Your task to perform on an android device: Do I have any events this weekend? Image 0: 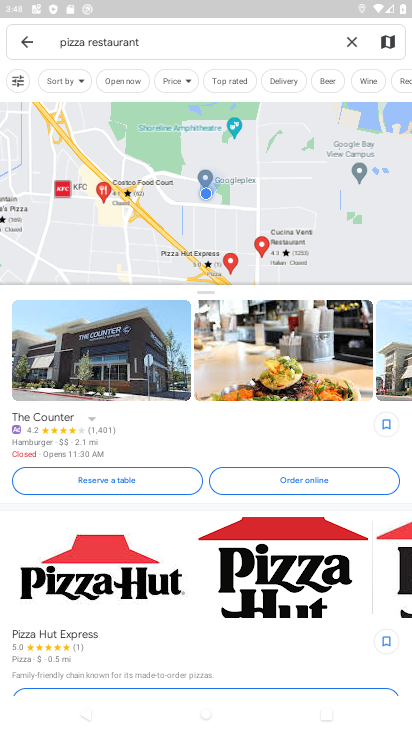
Step 0: press home button
Your task to perform on an android device: Do I have any events this weekend? Image 1: 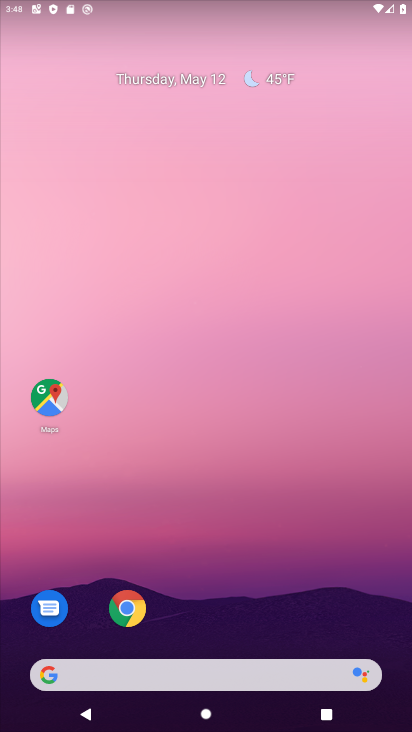
Step 1: drag from (225, 634) to (239, 61)
Your task to perform on an android device: Do I have any events this weekend? Image 2: 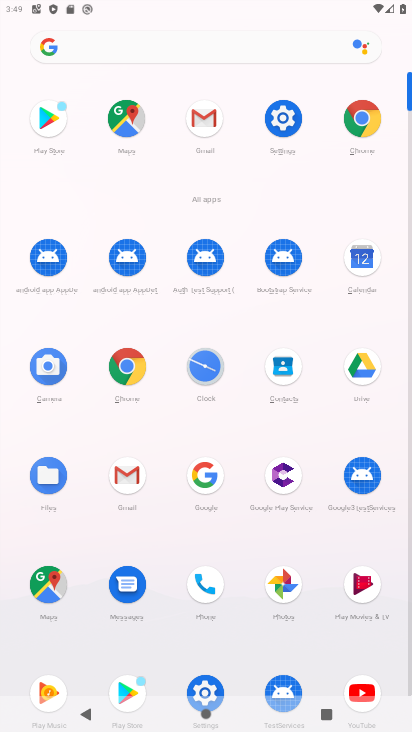
Step 2: click (363, 258)
Your task to perform on an android device: Do I have any events this weekend? Image 3: 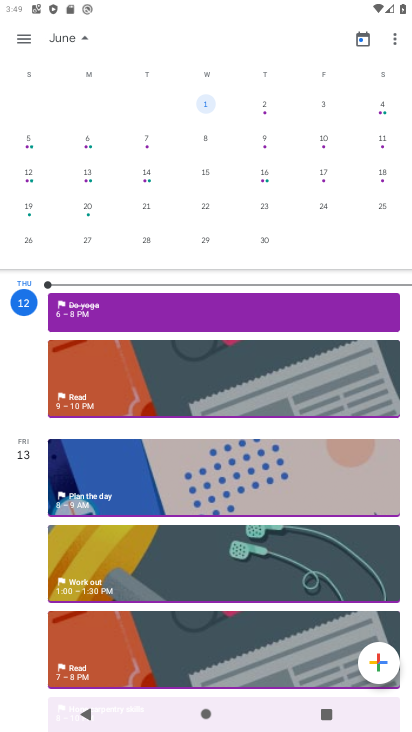
Step 3: drag from (57, 217) to (397, 112)
Your task to perform on an android device: Do I have any events this weekend? Image 4: 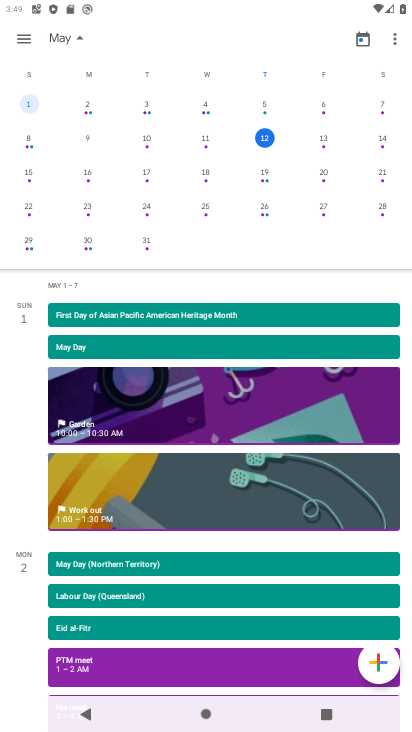
Step 4: drag from (60, 171) to (340, 130)
Your task to perform on an android device: Do I have any events this weekend? Image 5: 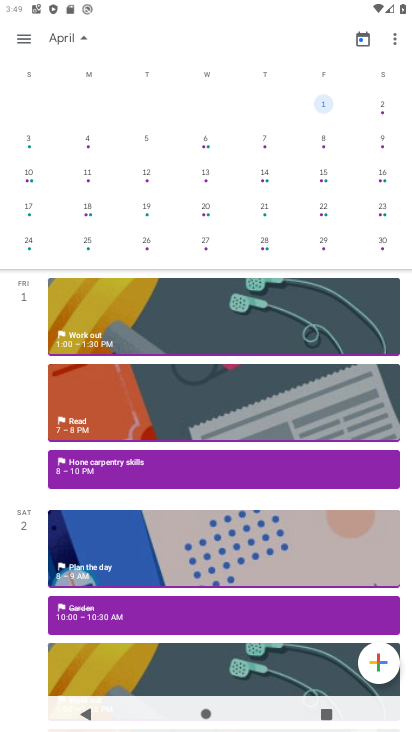
Step 5: drag from (365, 228) to (378, 135)
Your task to perform on an android device: Do I have any events this weekend? Image 6: 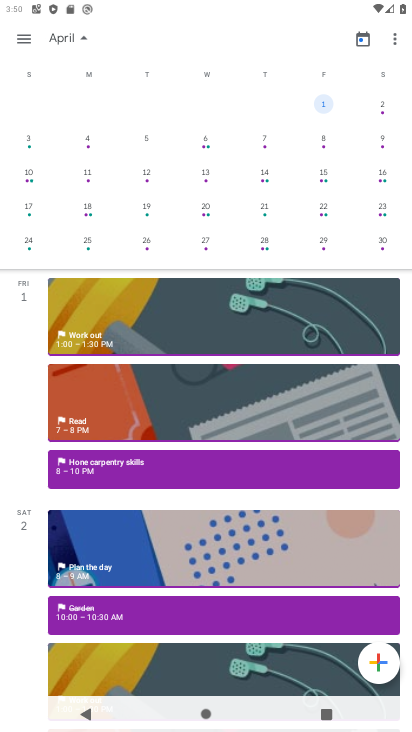
Step 6: click (23, 38)
Your task to perform on an android device: Do I have any events this weekend? Image 7: 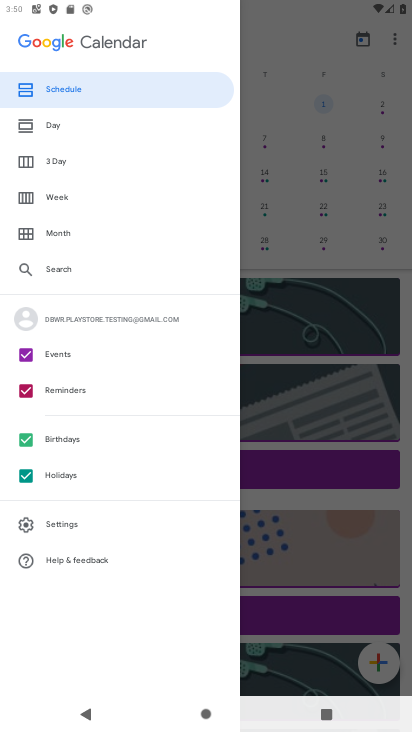
Step 7: click (50, 365)
Your task to perform on an android device: Do I have any events this weekend? Image 8: 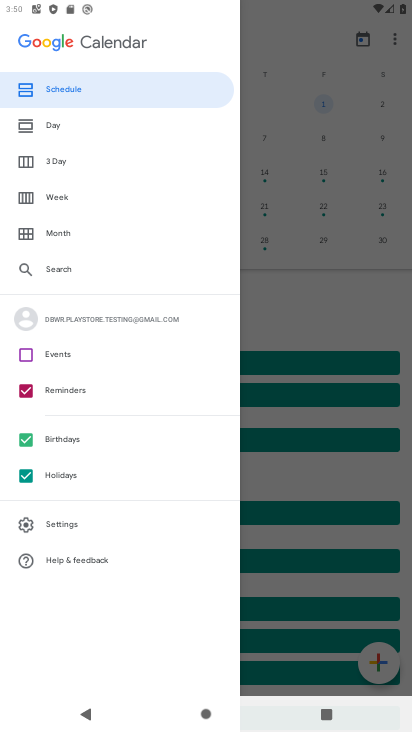
Step 8: click (50, 365)
Your task to perform on an android device: Do I have any events this weekend? Image 9: 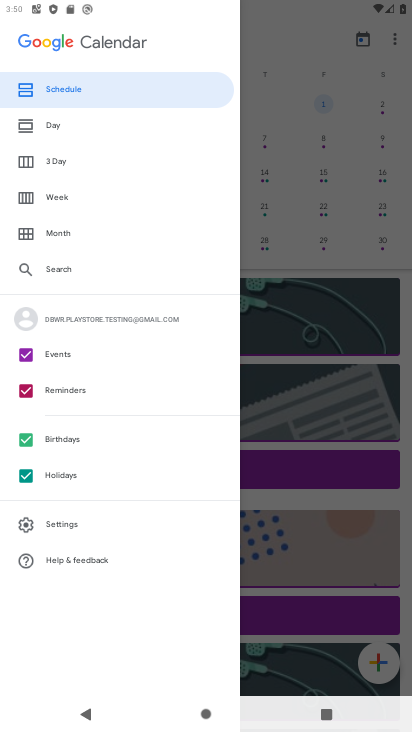
Step 9: click (362, 466)
Your task to perform on an android device: Do I have any events this weekend? Image 10: 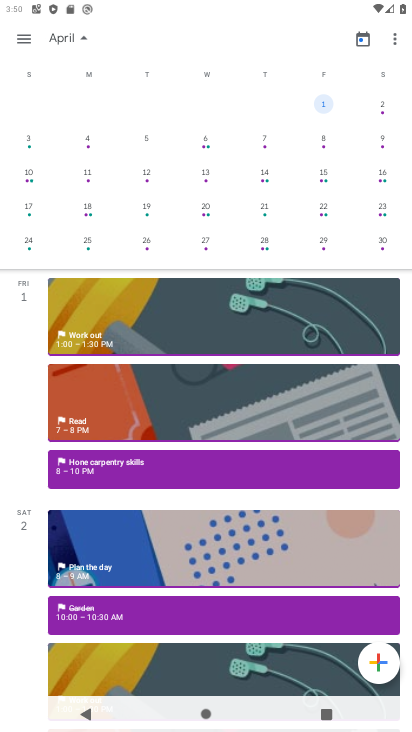
Step 10: click (362, 466)
Your task to perform on an android device: Do I have any events this weekend? Image 11: 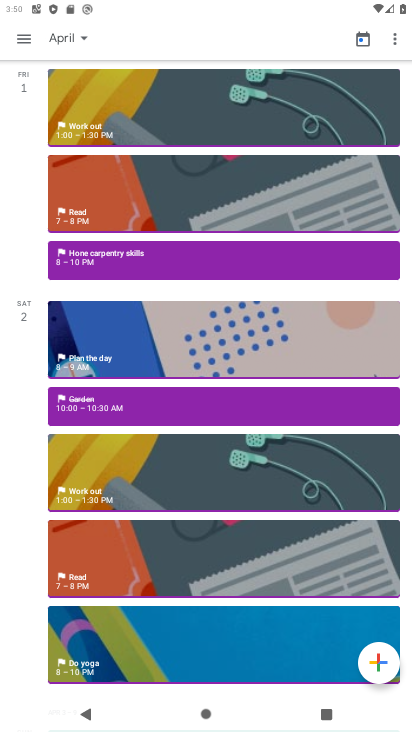
Step 11: click (206, 277)
Your task to perform on an android device: Do I have any events this weekend? Image 12: 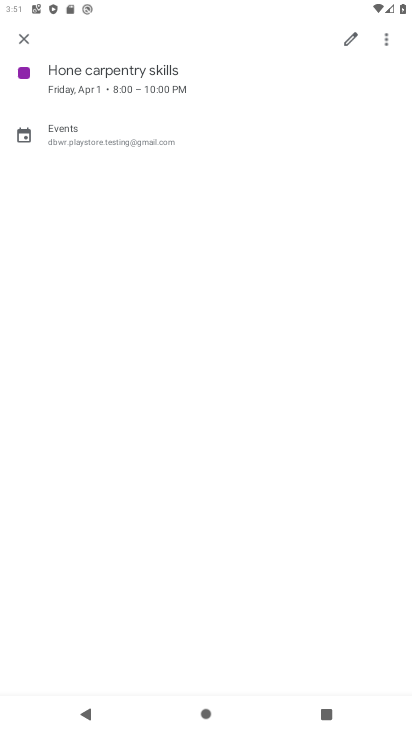
Step 12: task complete